Your task to perform on an android device: open a bookmark in the chrome app Image 0: 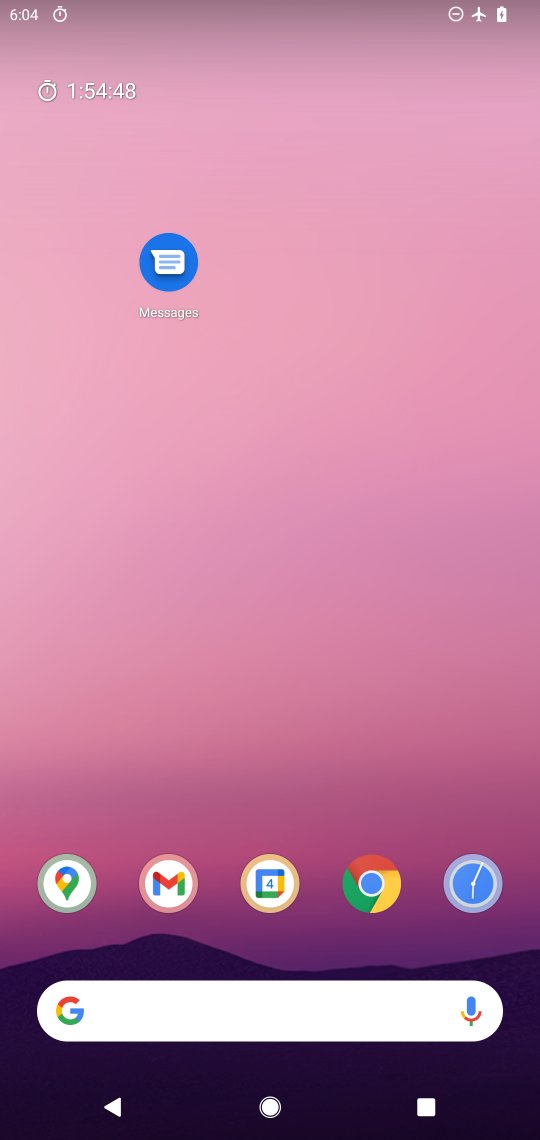
Step 0: click (372, 883)
Your task to perform on an android device: open a bookmark in the chrome app Image 1: 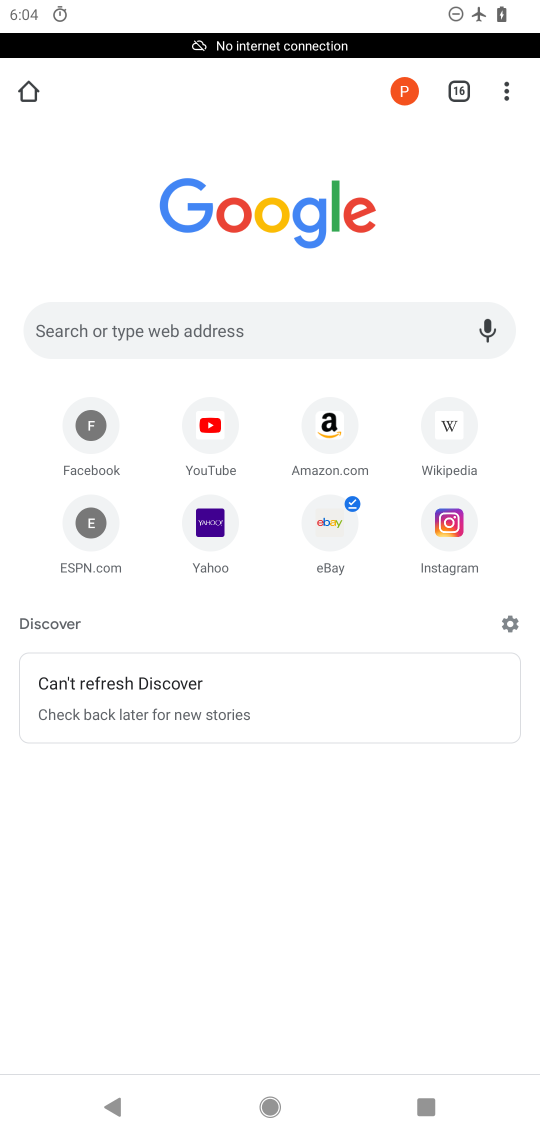
Step 1: click (503, 95)
Your task to perform on an android device: open a bookmark in the chrome app Image 2: 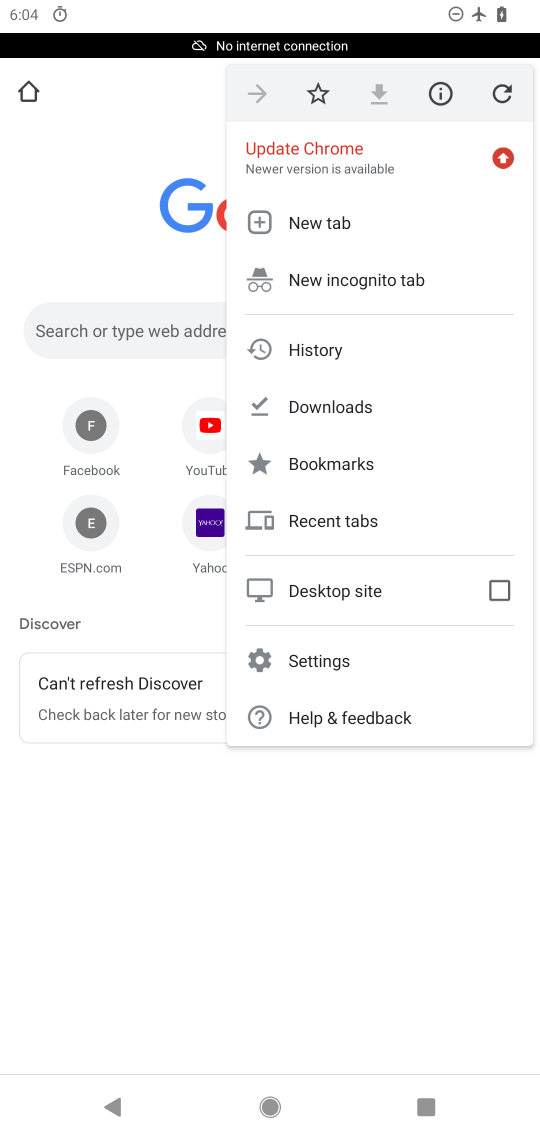
Step 2: click (332, 466)
Your task to perform on an android device: open a bookmark in the chrome app Image 3: 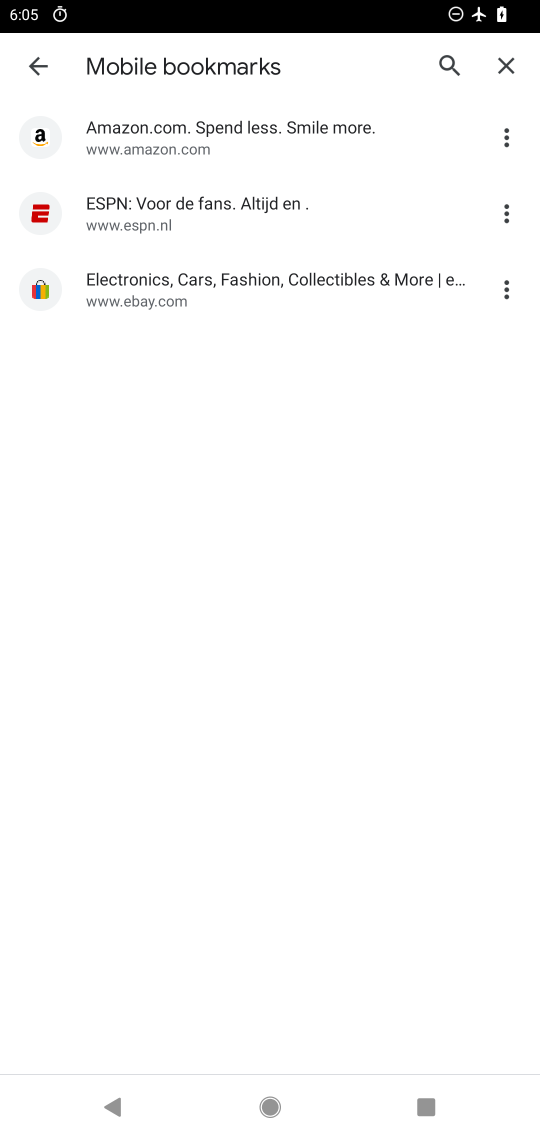
Step 3: click (101, 219)
Your task to perform on an android device: open a bookmark in the chrome app Image 4: 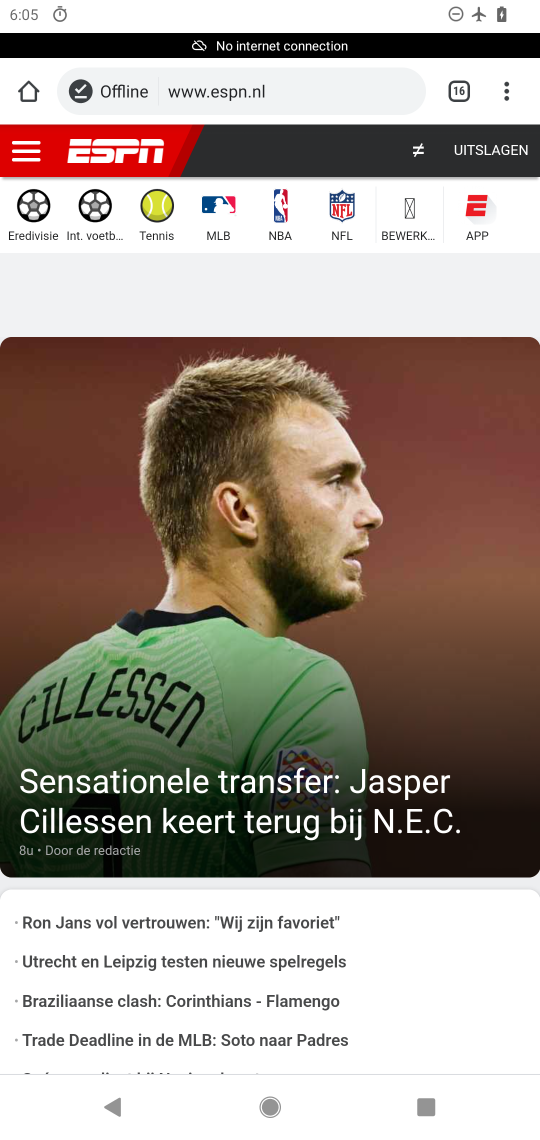
Step 4: task complete